Your task to perform on an android device: toggle notifications settings in the gmail app Image 0: 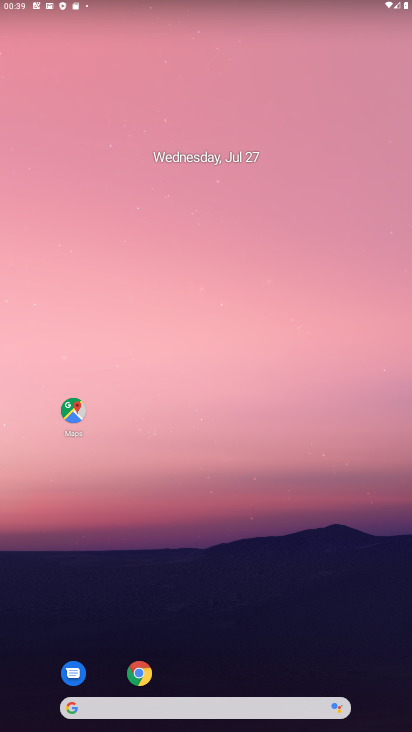
Step 0: drag from (243, 661) to (260, 324)
Your task to perform on an android device: toggle notifications settings in the gmail app Image 1: 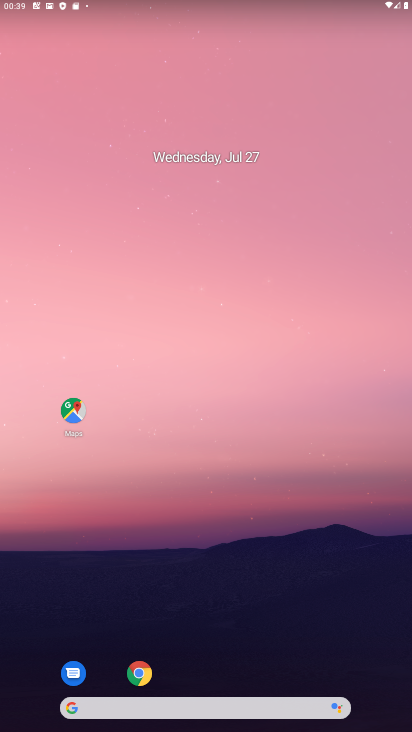
Step 1: drag from (210, 690) to (244, 376)
Your task to perform on an android device: toggle notifications settings in the gmail app Image 2: 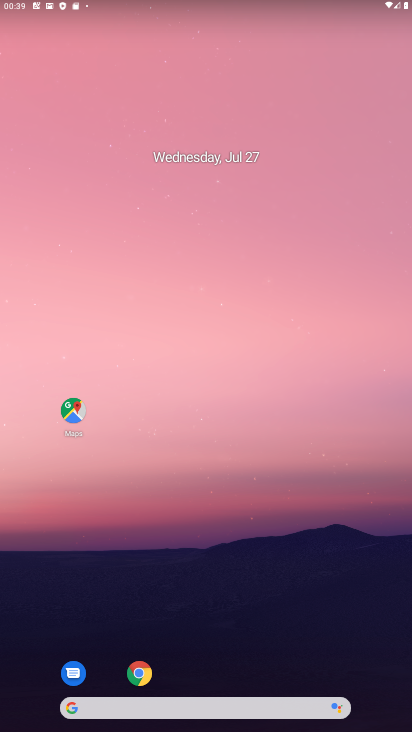
Step 2: drag from (201, 634) to (219, 138)
Your task to perform on an android device: toggle notifications settings in the gmail app Image 3: 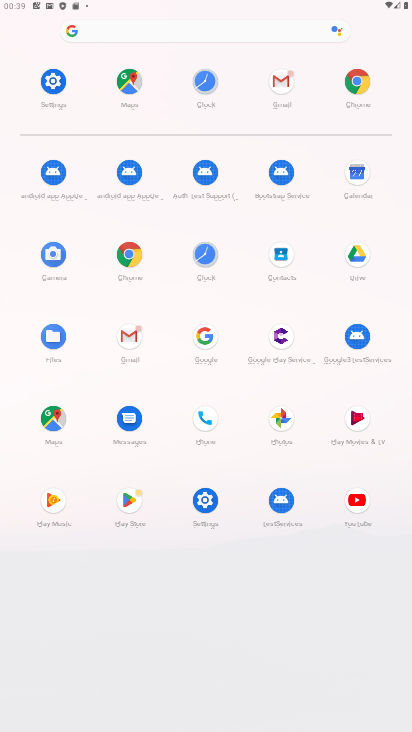
Step 3: click (285, 80)
Your task to perform on an android device: toggle notifications settings in the gmail app Image 4: 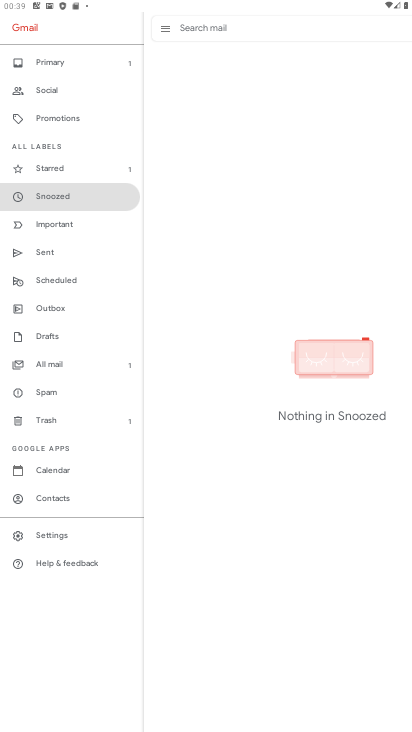
Step 4: click (54, 534)
Your task to perform on an android device: toggle notifications settings in the gmail app Image 5: 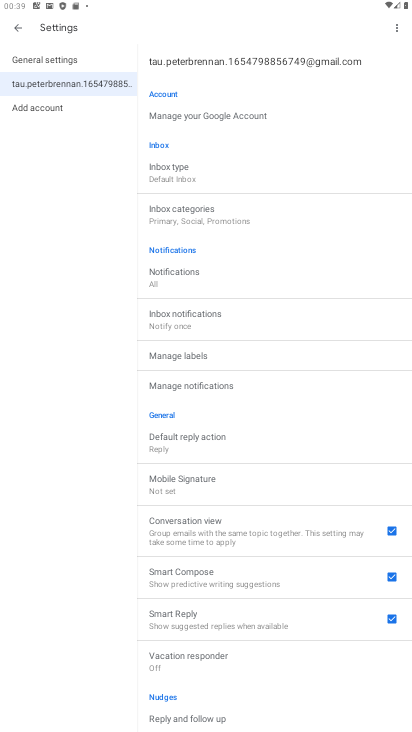
Step 5: click (174, 266)
Your task to perform on an android device: toggle notifications settings in the gmail app Image 6: 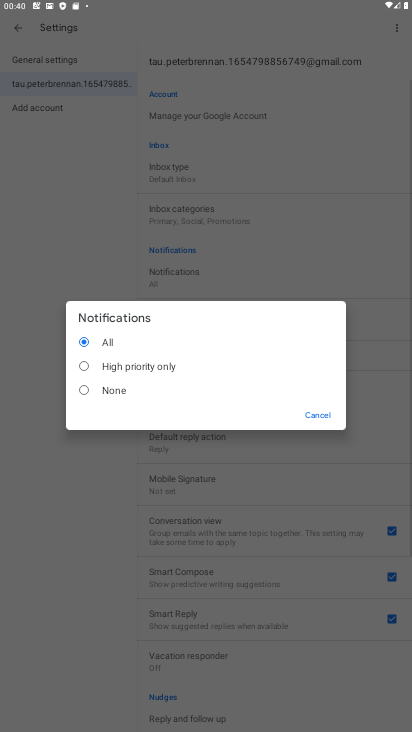
Step 6: click (103, 391)
Your task to perform on an android device: toggle notifications settings in the gmail app Image 7: 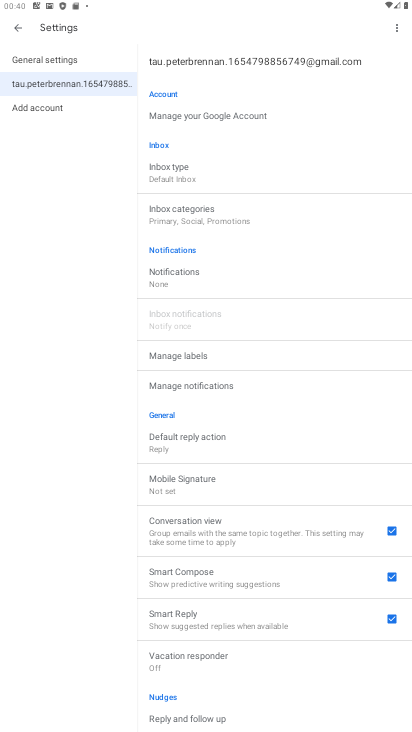
Step 7: task complete